Your task to perform on an android device: Open Chrome and go to settings Image 0: 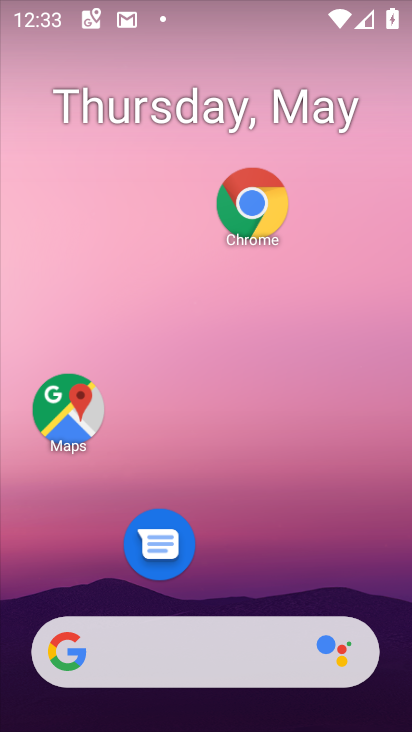
Step 0: click (247, 195)
Your task to perform on an android device: Open Chrome and go to settings Image 1: 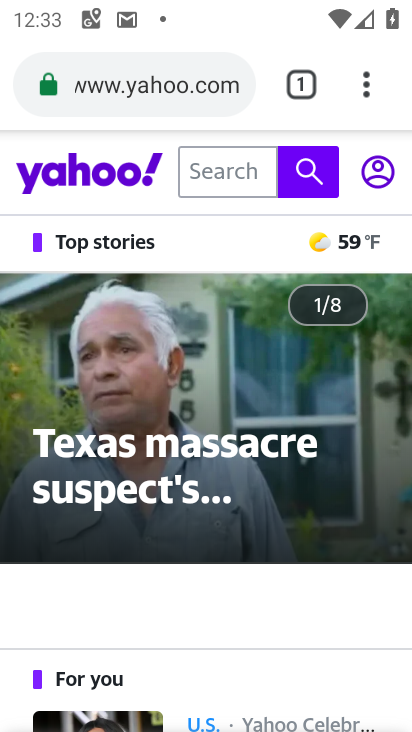
Step 1: click (366, 83)
Your task to perform on an android device: Open Chrome and go to settings Image 2: 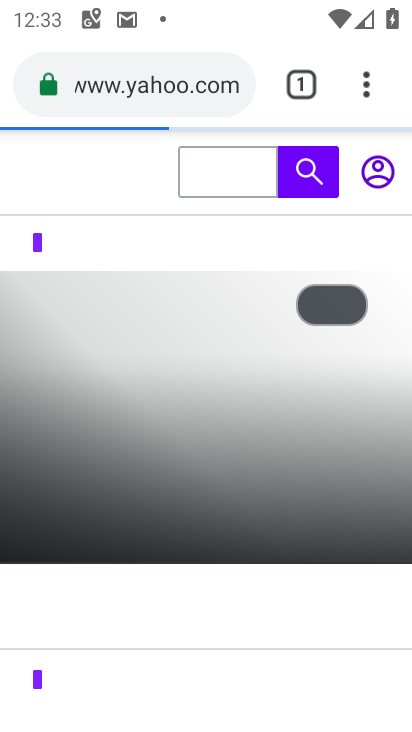
Step 2: click (366, 83)
Your task to perform on an android device: Open Chrome and go to settings Image 3: 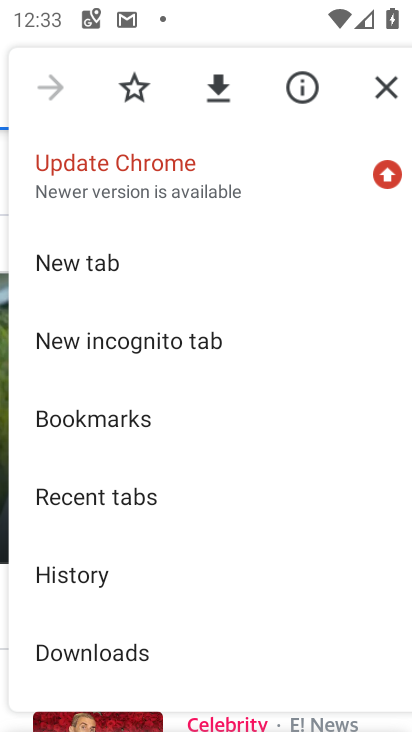
Step 3: drag from (261, 512) to (370, 47)
Your task to perform on an android device: Open Chrome and go to settings Image 4: 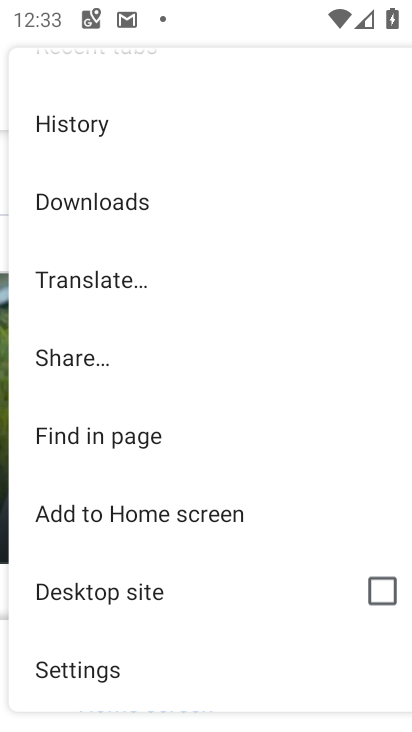
Step 4: click (77, 672)
Your task to perform on an android device: Open Chrome and go to settings Image 5: 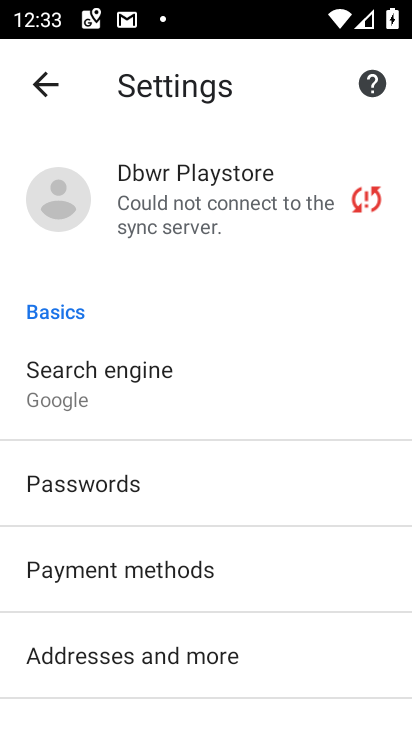
Step 5: task complete